Your task to perform on an android device: turn notification dots on Image 0: 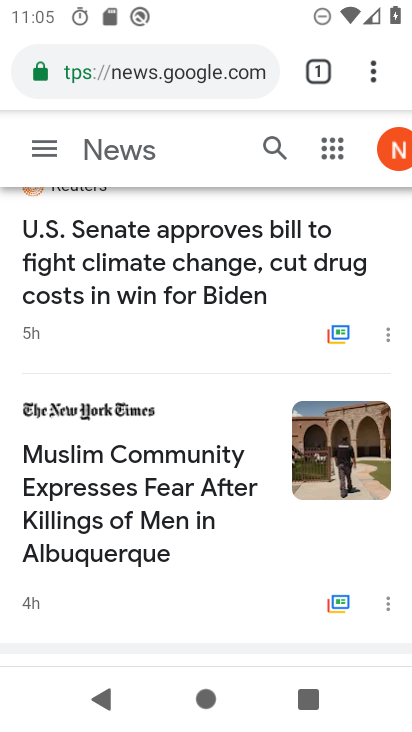
Step 0: press home button
Your task to perform on an android device: turn notification dots on Image 1: 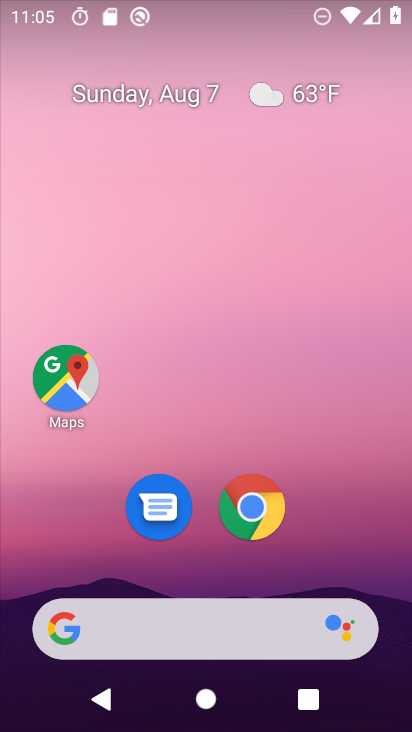
Step 1: drag from (333, 556) to (275, 101)
Your task to perform on an android device: turn notification dots on Image 2: 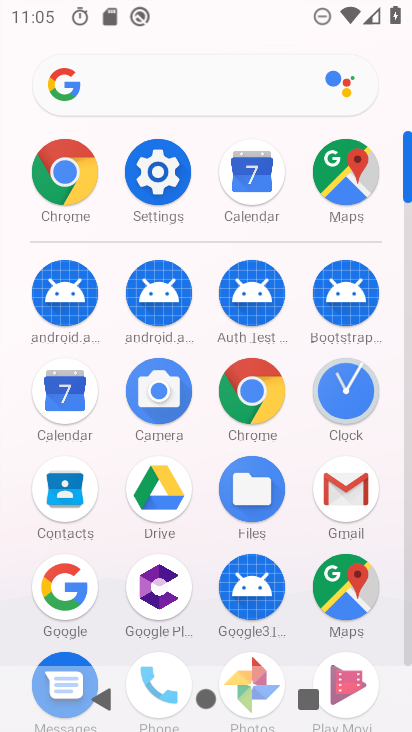
Step 2: click (163, 174)
Your task to perform on an android device: turn notification dots on Image 3: 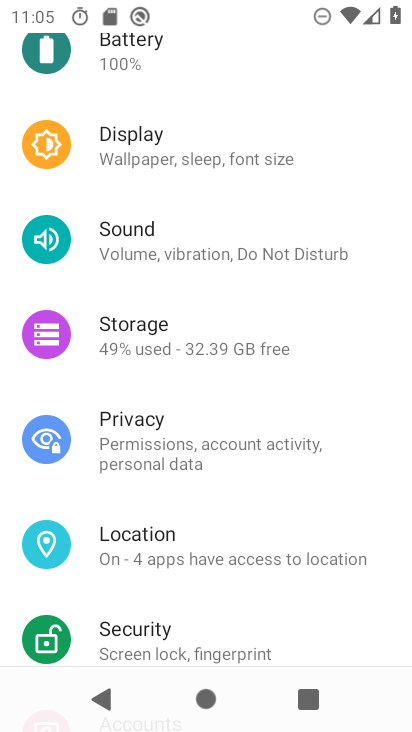
Step 3: drag from (257, 101) to (166, 545)
Your task to perform on an android device: turn notification dots on Image 4: 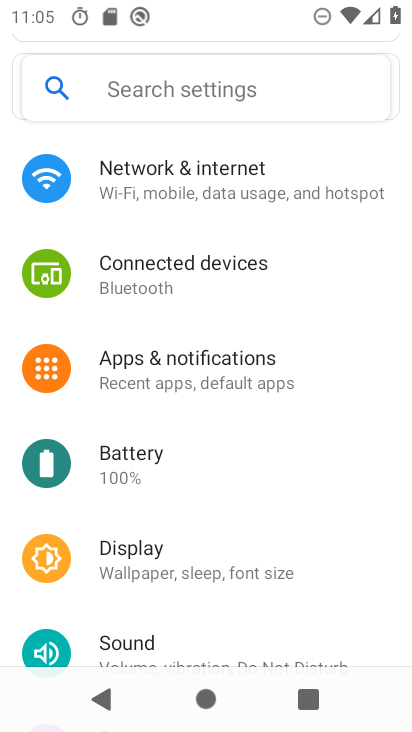
Step 4: click (180, 367)
Your task to perform on an android device: turn notification dots on Image 5: 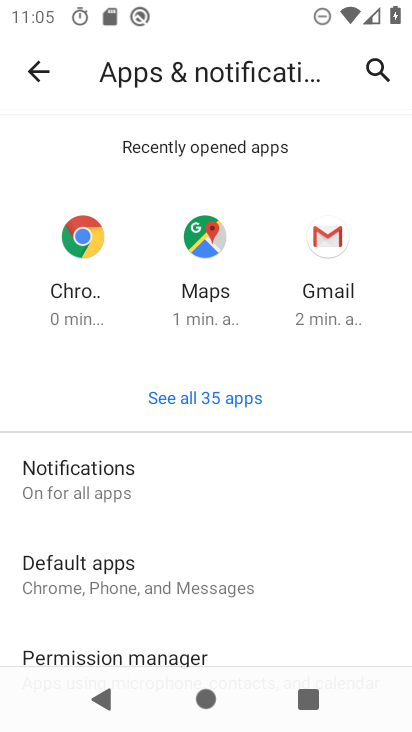
Step 5: drag from (232, 527) to (246, 204)
Your task to perform on an android device: turn notification dots on Image 6: 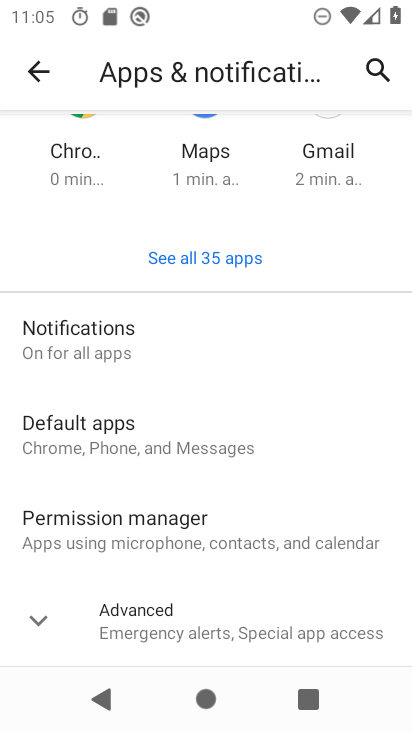
Step 6: click (69, 333)
Your task to perform on an android device: turn notification dots on Image 7: 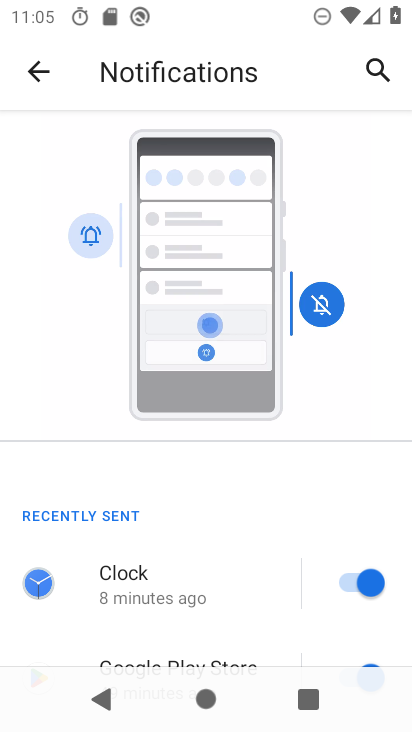
Step 7: drag from (252, 518) to (283, 88)
Your task to perform on an android device: turn notification dots on Image 8: 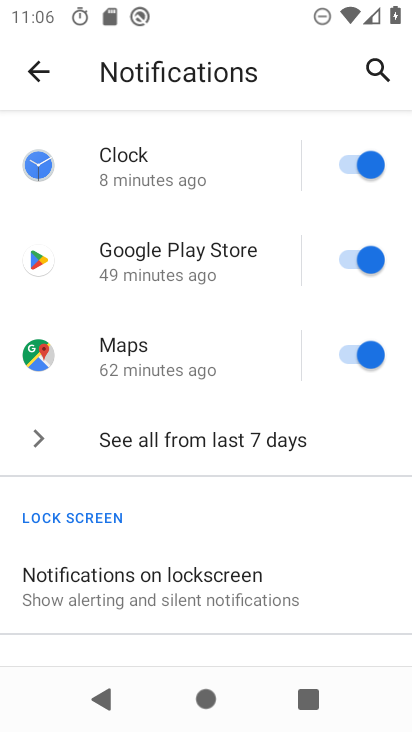
Step 8: drag from (199, 571) to (247, 233)
Your task to perform on an android device: turn notification dots on Image 9: 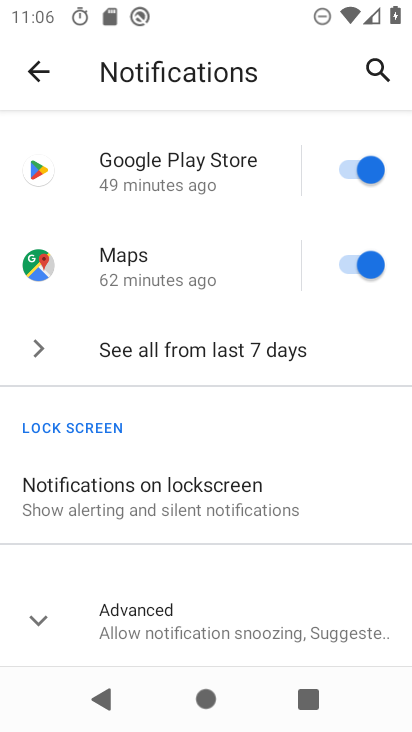
Step 9: click (177, 614)
Your task to perform on an android device: turn notification dots on Image 10: 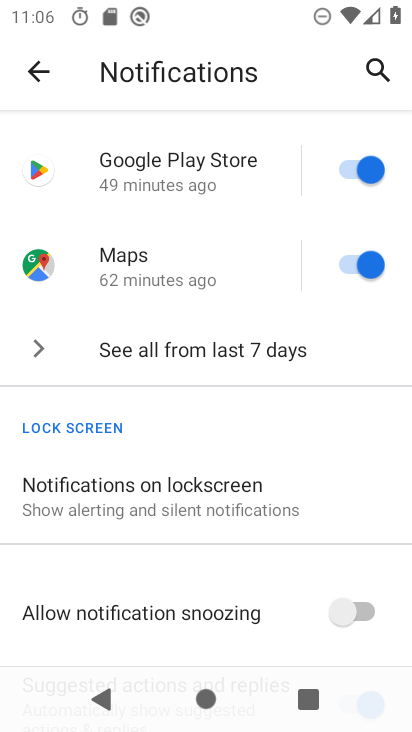
Step 10: drag from (365, 525) to (373, 161)
Your task to perform on an android device: turn notification dots on Image 11: 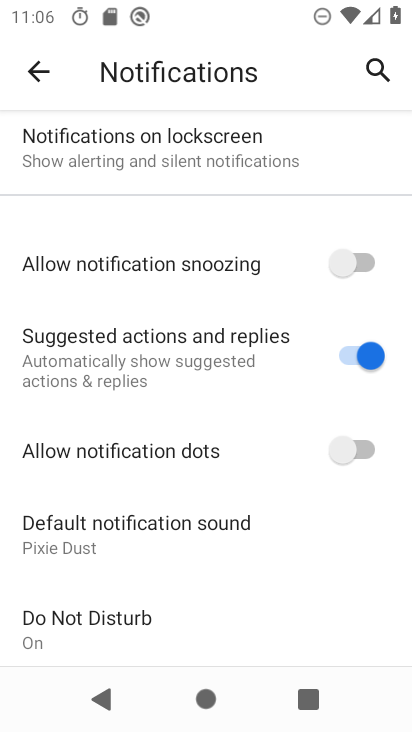
Step 11: click (353, 437)
Your task to perform on an android device: turn notification dots on Image 12: 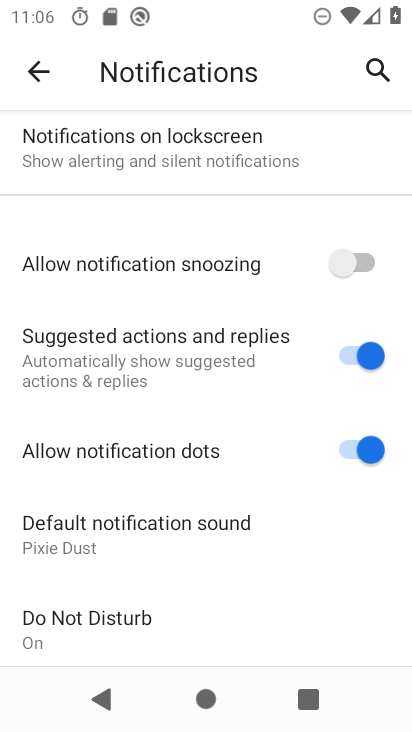
Step 12: task complete